Your task to perform on an android device: turn on wifi Image 0: 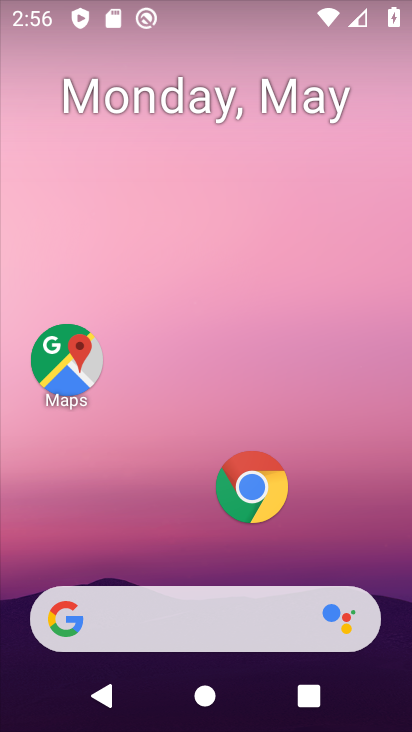
Step 0: drag from (193, 490) to (204, 3)
Your task to perform on an android device: turn on wifi Image 1: 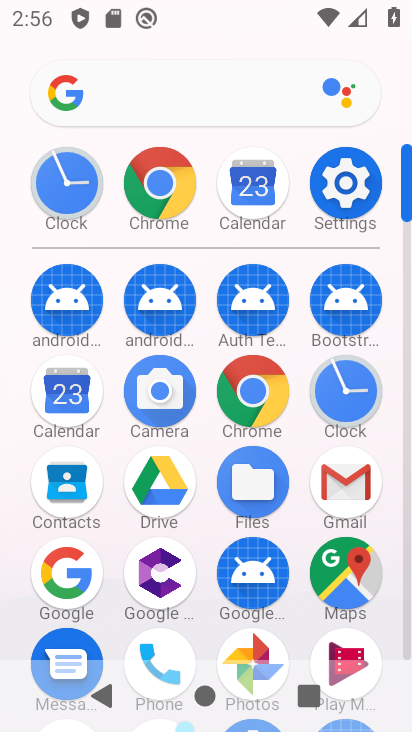
Step 1: click (346, 186)
Your task to perform on an android device: turn on wifi Image 2: 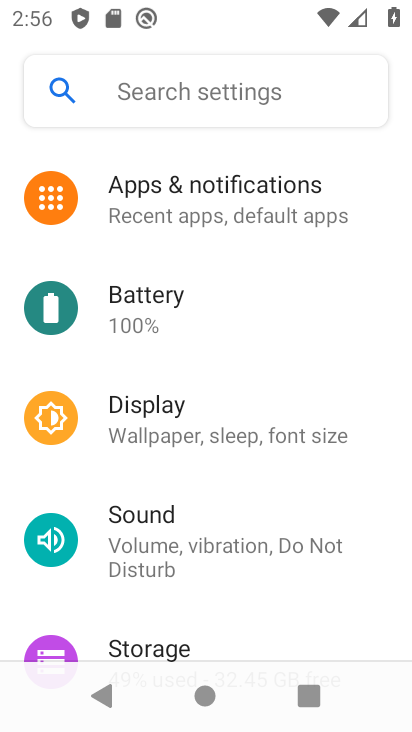
Step 2: drag from (136, 222) to (174, 441)
Your task to perform on an android device: turn on wifi Image 3: 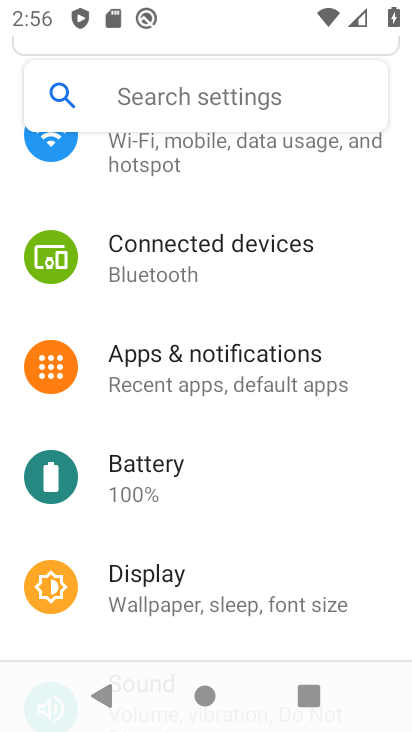
Step 3: drag from (234, 214) to (241, 413)
Your task to perform on an android device: turn on wifi Image 4: 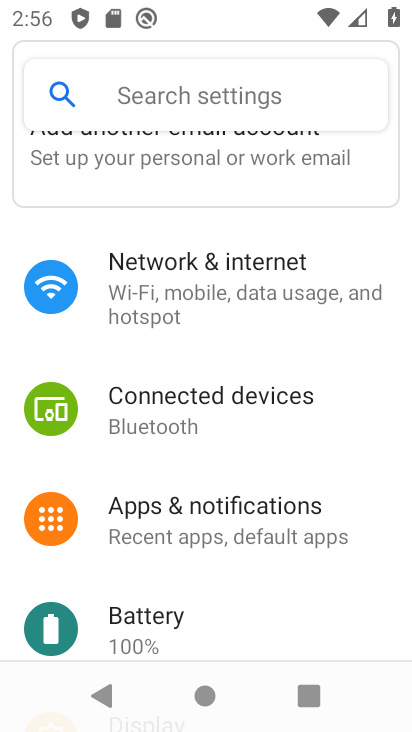
Step 4: click (195, 295)
Your task to perform on an android device: turn on wifi Image 5: 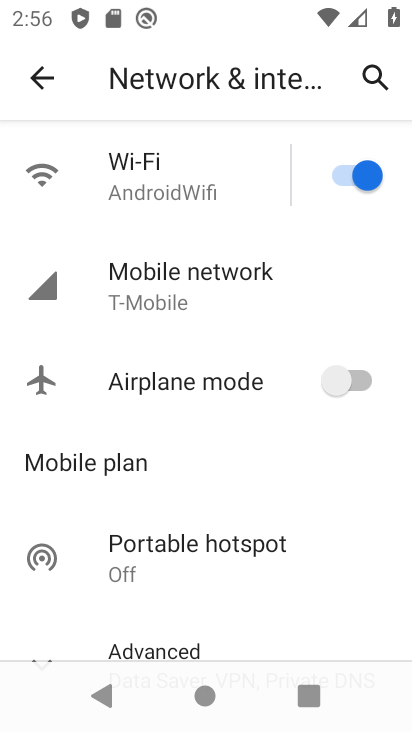
Step 5: task complete